Your task to perform on an android device: Show me popular videos on Youtube Image 0: 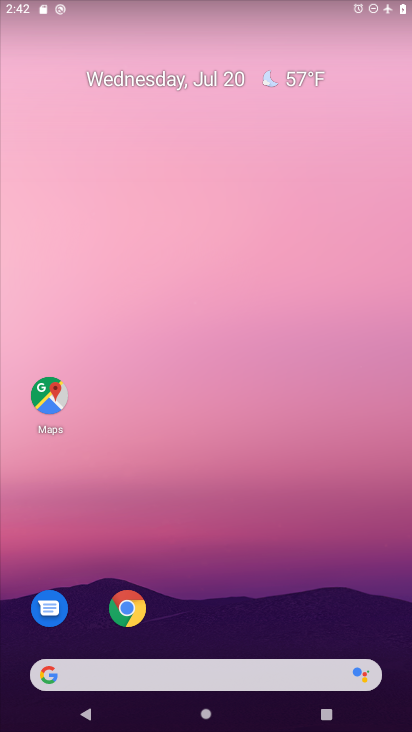
Step 0: drag from (274, 440) to (324, 161)
Your task to perform on an android device: Show me popular videos on Youtube Image 1: 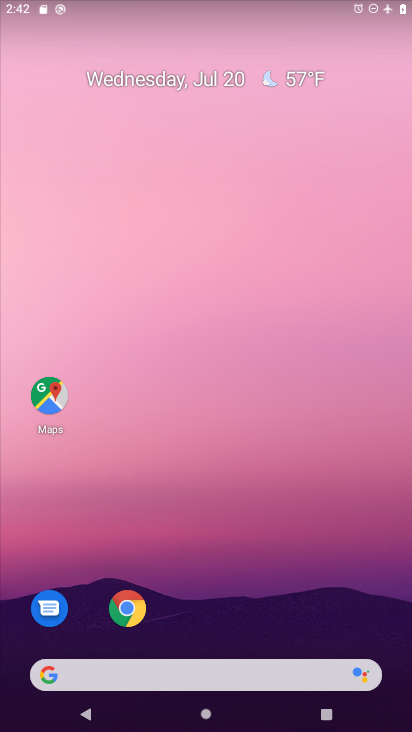
Step 1: drag from (266, 699) to (310, 16)
Your task to perform on an android device: Show me popular videos on Youtube Image 2: 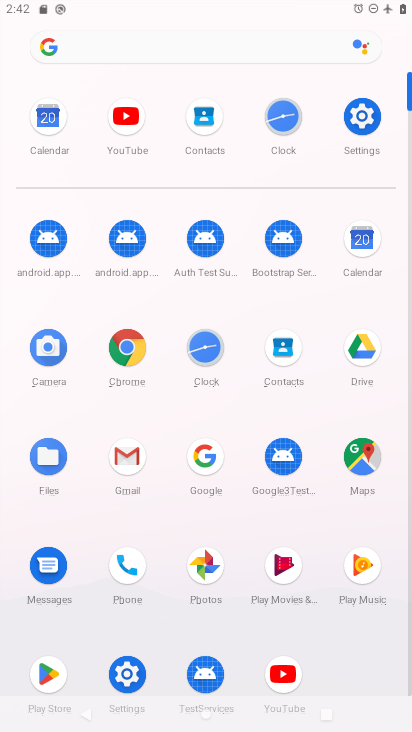
Step 2: click (134, 128)
Your task to perform on an android device: Show me popular videos on Youtube Image 3: 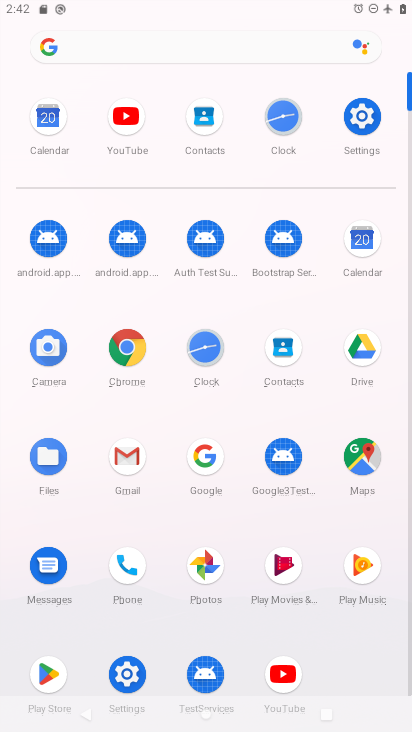
Step 3: click (134, 128)
Your task to perform on an android device: Show me popular videos on Youtube Image 4: 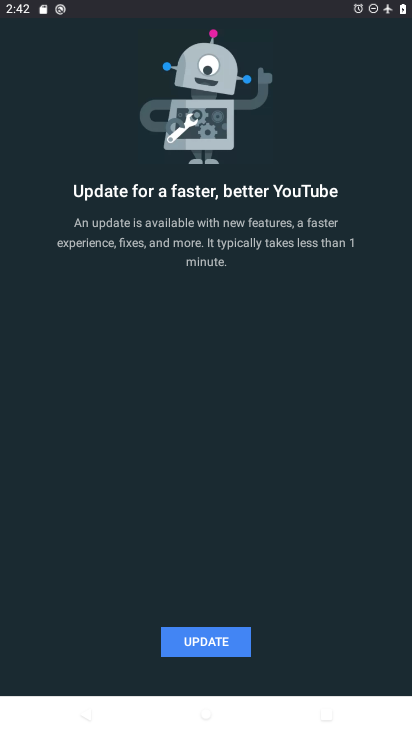
Step 4: click (209, 653)
Your task to perform on an android device: Show me popular videos on Youtube Image 5: 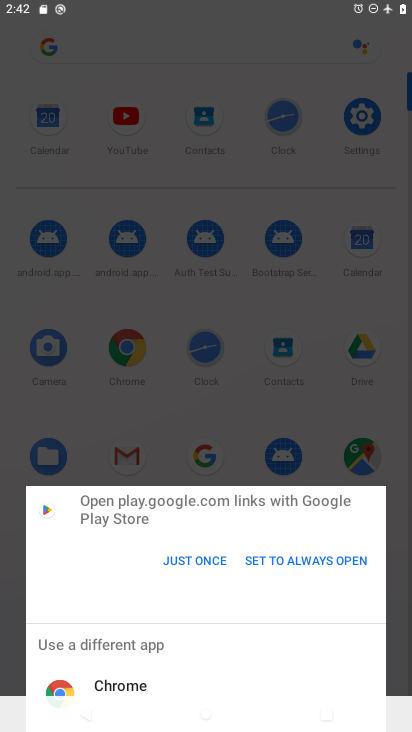
Step 5: click (198, 555)
Your task to perform on an android device: Show me popular videos on Youtube Image 6: 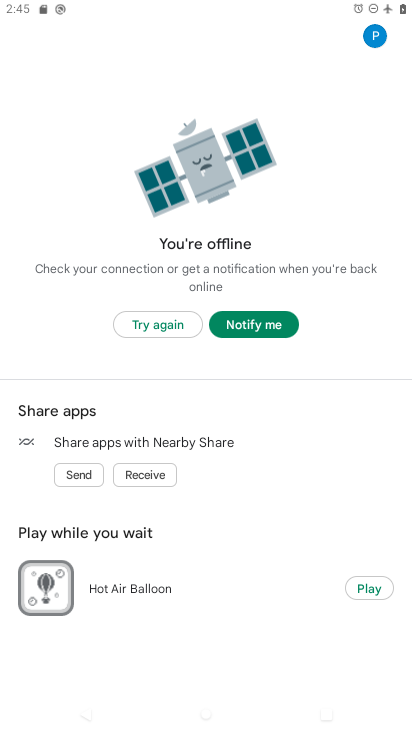
Step 6: task complete